Your task to perform on an android device: Open sound settings Image 0: 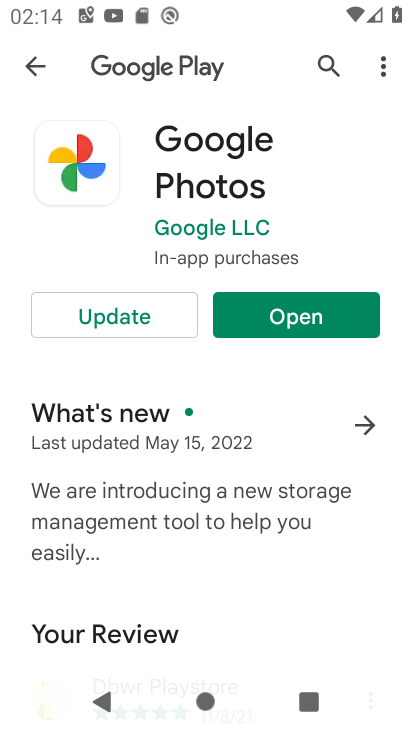
Step 0: press home button
Your task to perform on an android device: Open sound settings Image 1: 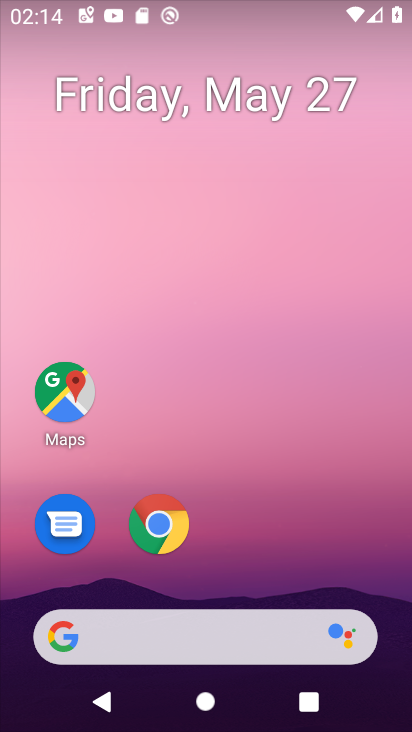
Step 1: drag from (249, 498) to (302, 16)
Your task to perform on an android device: Open sound settings Image 2: 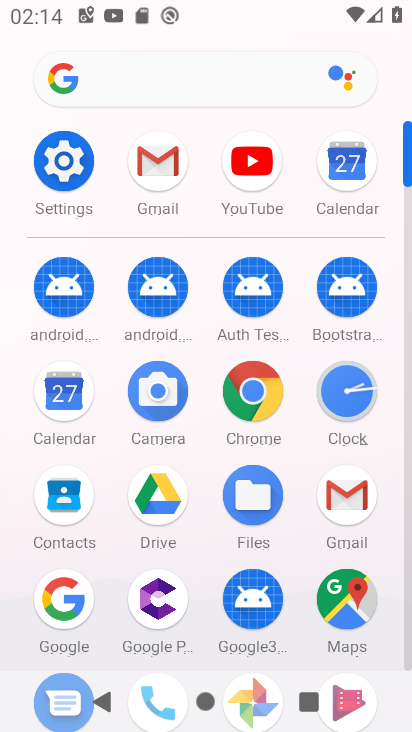
Step 2: click (66, 167)
Your task to perform on an android device: Open sound settings Image 3: 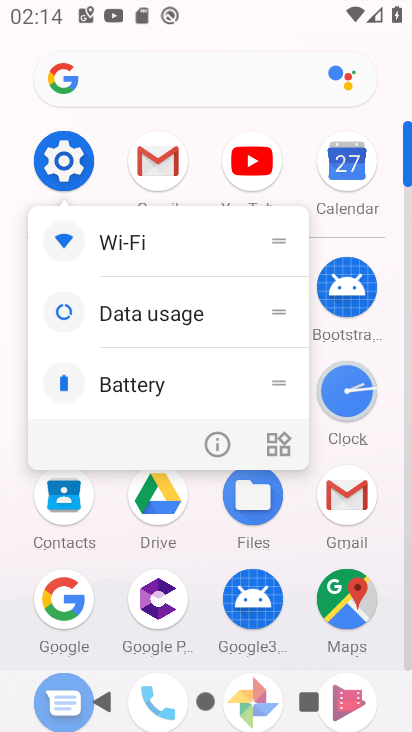
Step 3: click (66, 164)
Your task to perform on an android device: Open sound settings Image 4: 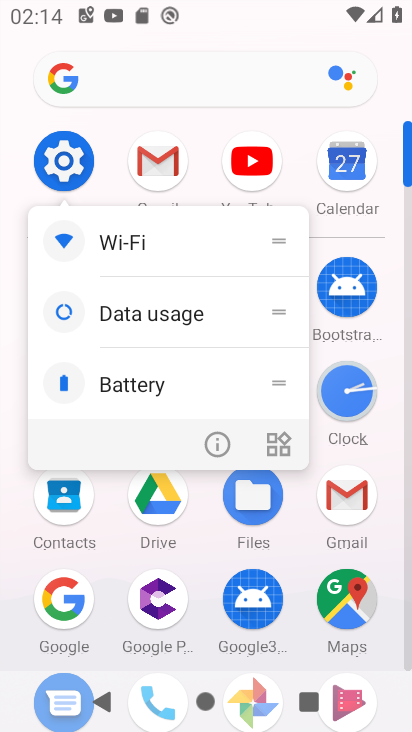
Step 4: click (66, 145)
Your task to perform on an android device: Open sound settings Image 5: 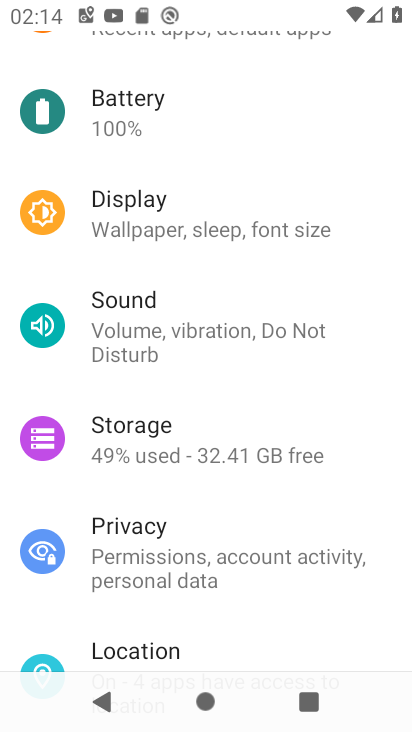
Step 5: click (248, 323)
Your task to perform on an android device: Open sound settings Image 6: 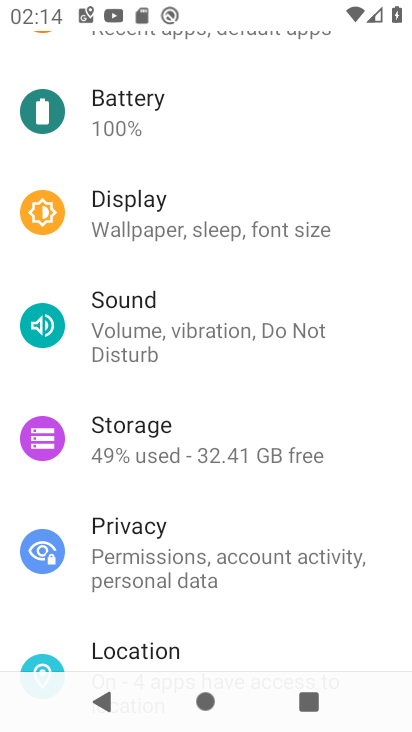
Step 6: click (247, 325)
Your task to perform on an android device: Open sound settings Image 7: 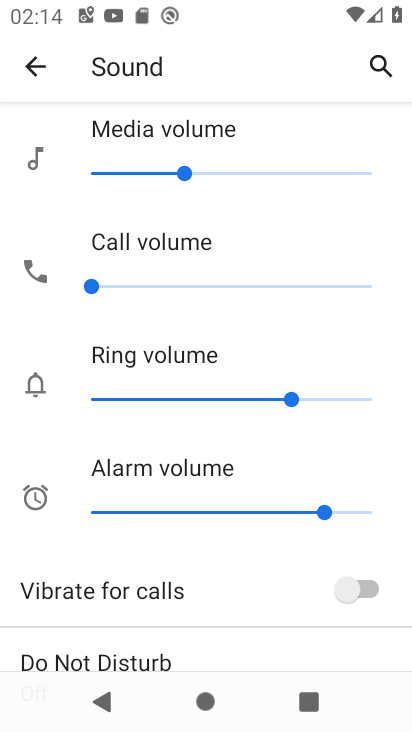
Step 7: task complete